Your task to perform on an android device: Open calendar and show me the second week of next month Image 0: 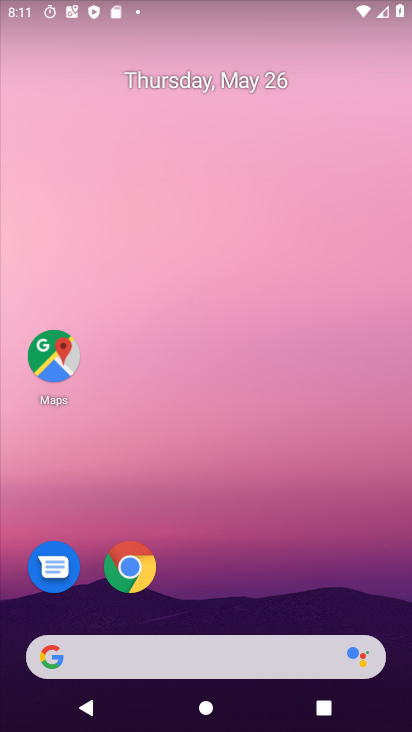
Step 0: press home button
Your task to perform on an android device: Open calendar and show me the second week of next month Image 1: 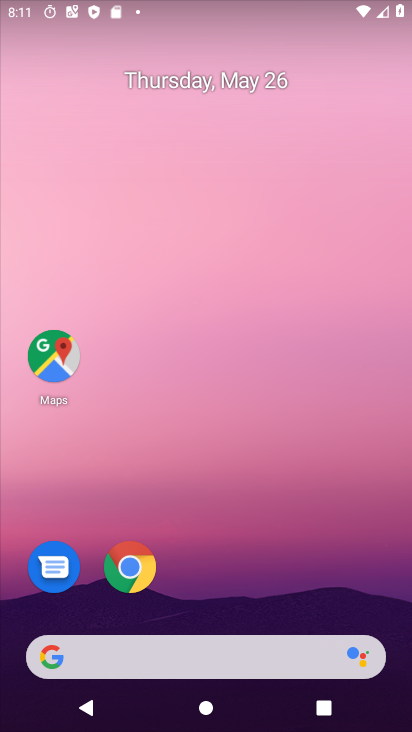
Step 1: drag from (115, 661) to (298, 152)
Your task to perform on an android device: Open calendar and show me the second week of next month Image 2: 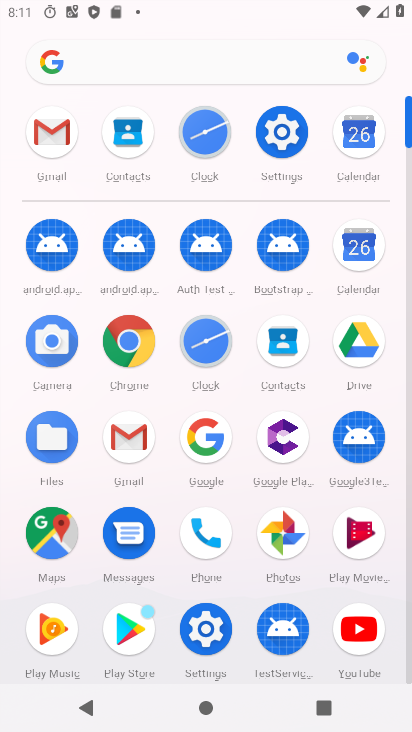
Step 2: click (360, 252)
Your task to perform on an android device: Open calendar and show me the second week of next month Image 3: 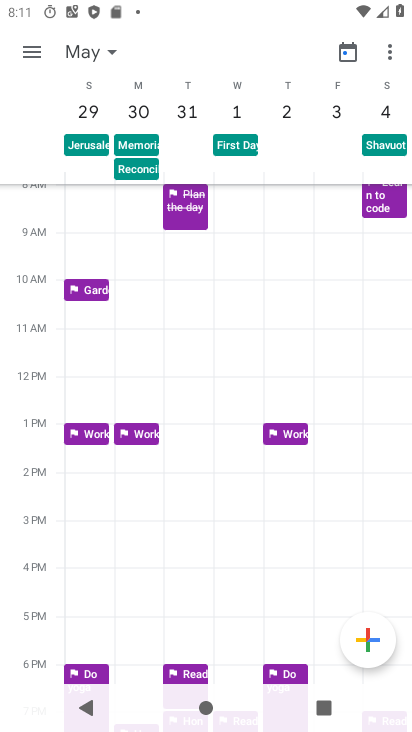
Step 3: click (85, 52)
Your task to perform on an android device: Open calendar and show me the second week of next month Image 4: 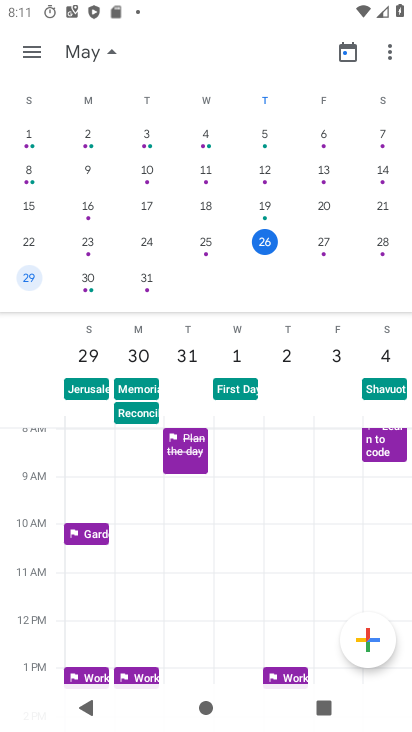
Step 4: drag from (380, 187) to (2, 262)
Your task to perform on an android device: Open calendar and show me the second week of next month Image 5: 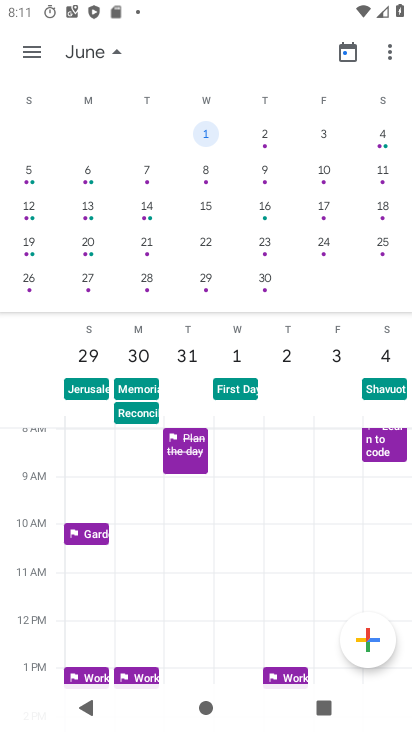
Step 5: click (34, 182)
Your task to perform on an android device: Open calendar and show me the second week of next month Image 6: 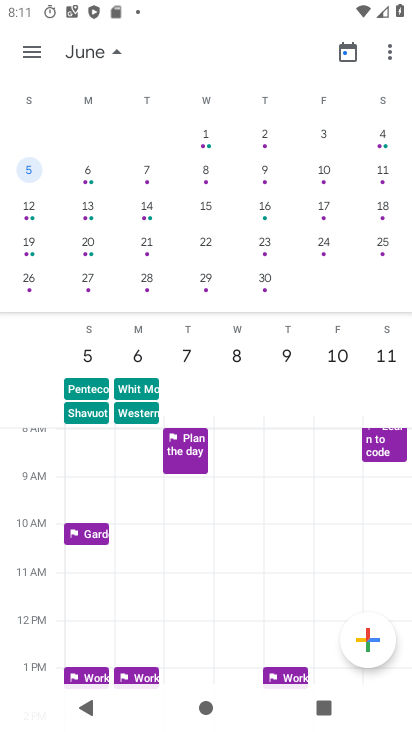
Step 6: click (34, 56)
Your task to perform on an android device: Open calendar and show me the second week of next month Image 7: 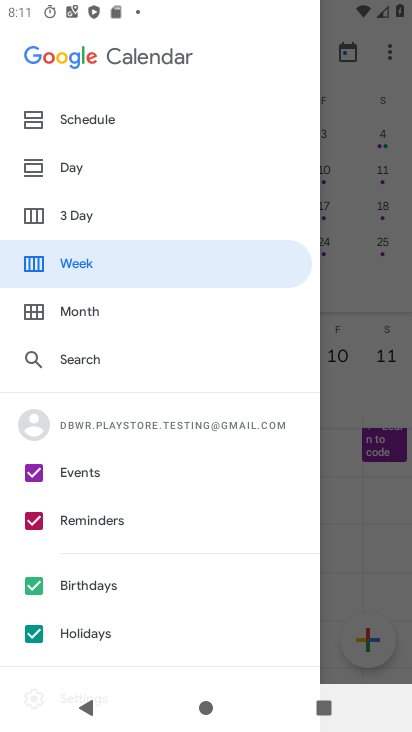
Step 7: click (77, 258)
Your task to perform on an android device: Open calendar and show me the second week of next month Image 8: 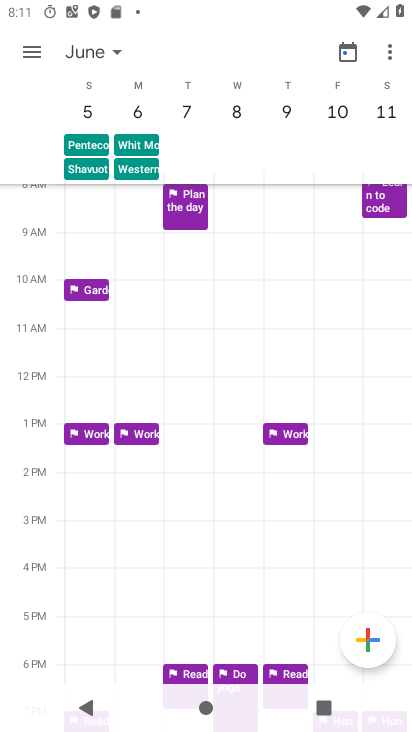
Step 8: task complete